Your task to perform on an android device: Open the calendar and show me this week's events? Image 0: 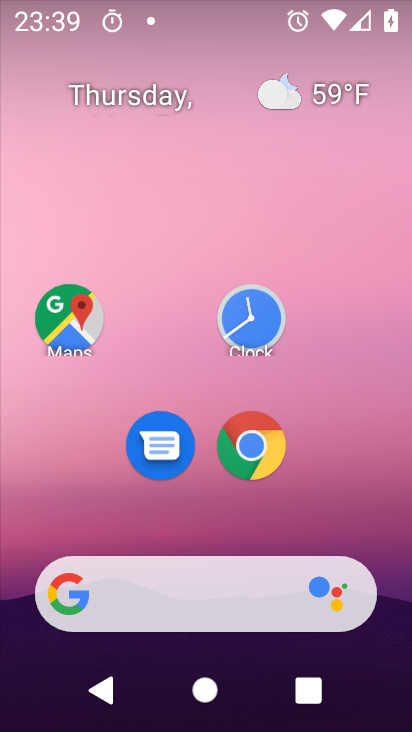
Step 0: drag from (241, 555) to (210, 120)
Your task to perform on an android device: Open the calendar and show me this week's events? Image 1: 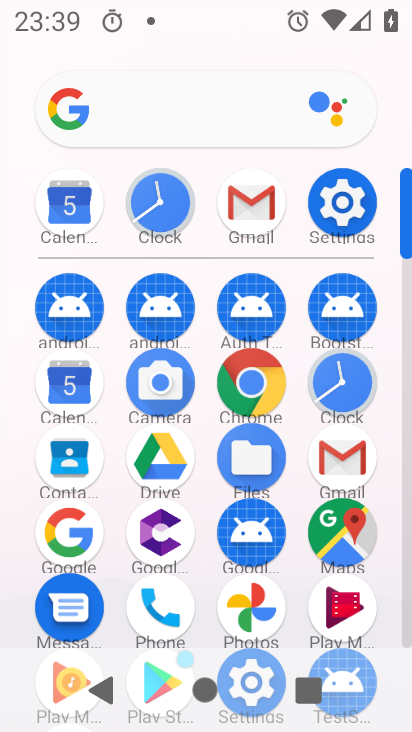
Step 1: click (80, 386)
Your task to perform on an android device: Open the calendar and show me this week's events? Image 2: 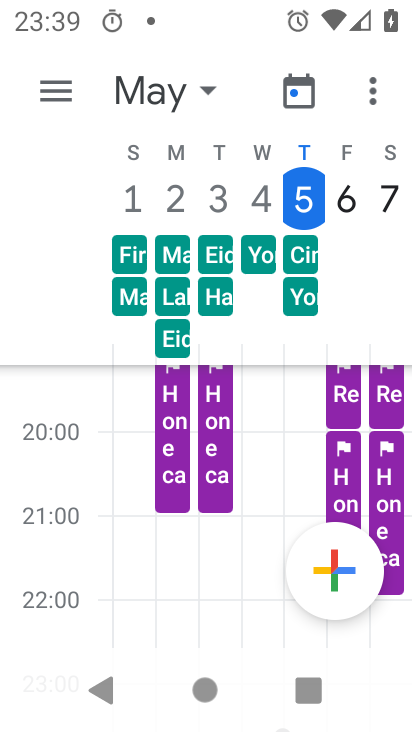
Step 2: task complete